Your task to perform on an android device: find photos in the google photos app Image 0: 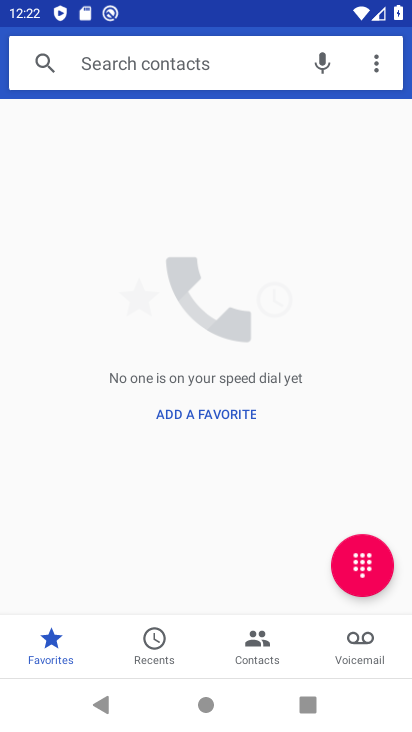
Step 0: press home button
Your task to perform on an android device: find photos in the google photos app Image 1: 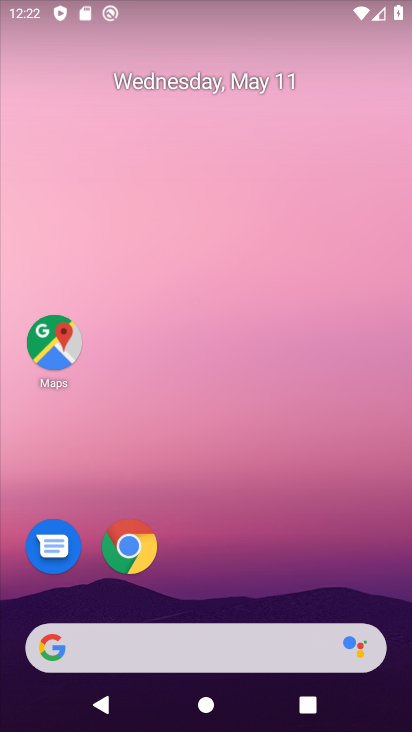
Step 1: drag from (300, 675) to (271, 214)
Your task to perform on an android device: find photos in the google photos app Image 2: 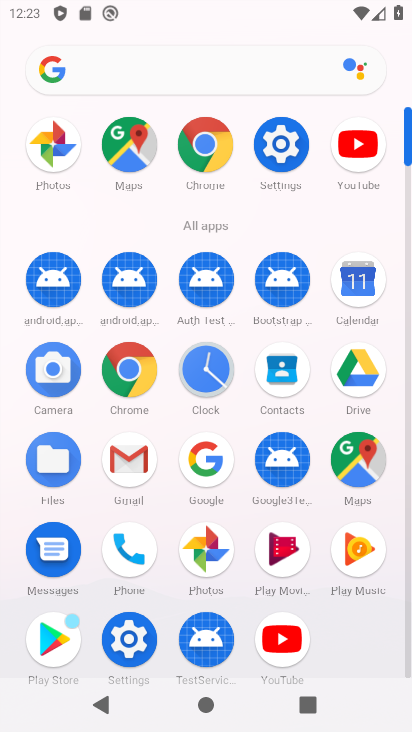
Step 2: click (220, 548)
Your task to perform on an android device: find photos in the google photos app Image 3: 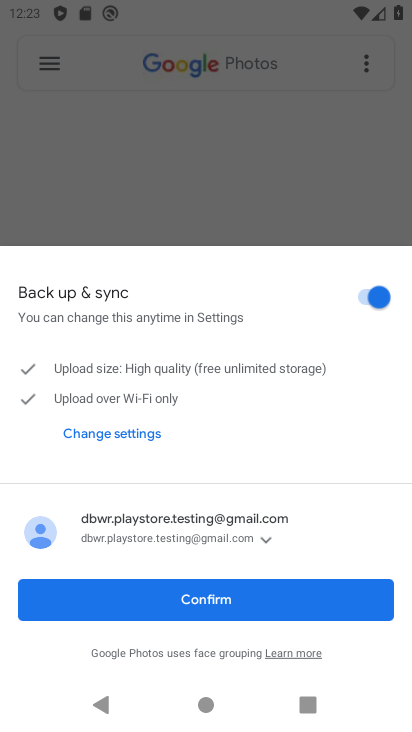
Step 3: click (234, 597)
Your task to perform on an android device: find photos in the google photos app Image 4: 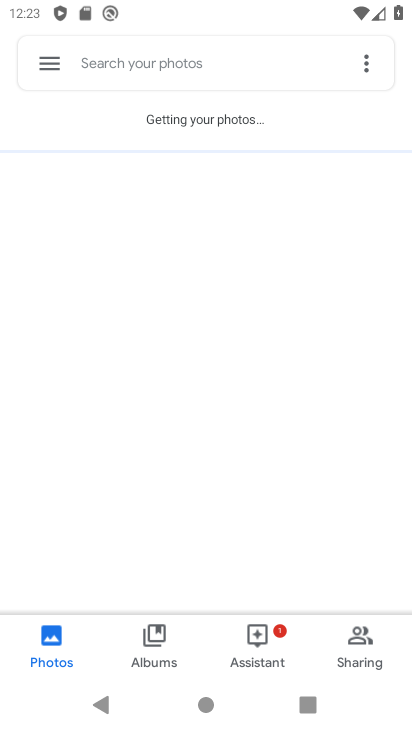
Step 4: click (178, 290)
Your task to perform on an android device: find photos in the google photos app Image 5: 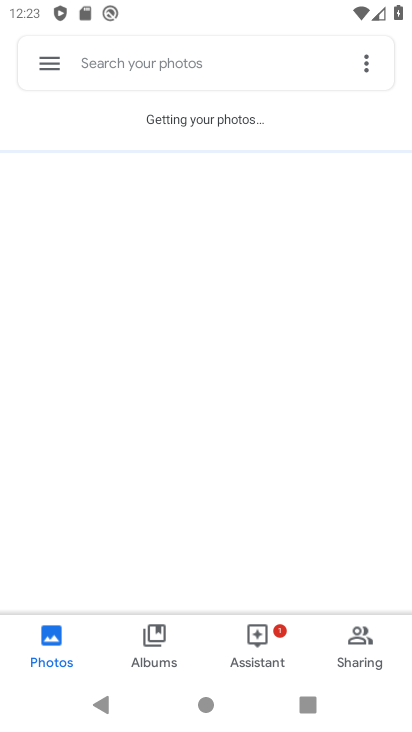
Step 5: click (168, 122)
Your task to perform on an android device: find photos in the google photos app Image 6: 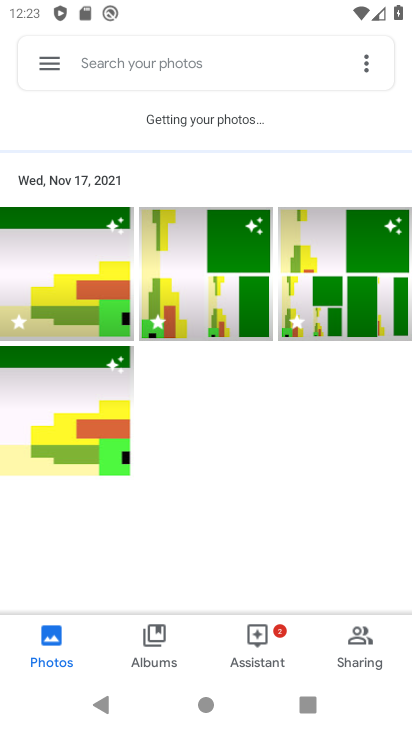
Step 6: task complete